Your task to perform on an android device: Search for pizza restaurants on Maps Image 0: 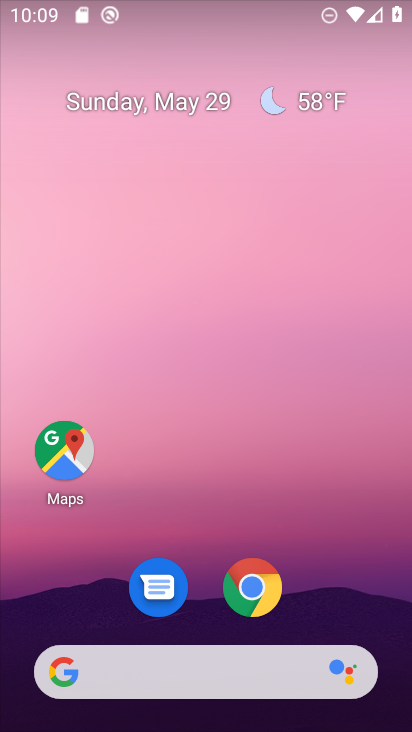
Step 0: click (62, 432)
Your task to perform on an android device: Search for pizza restaurants on Maps Image 1: 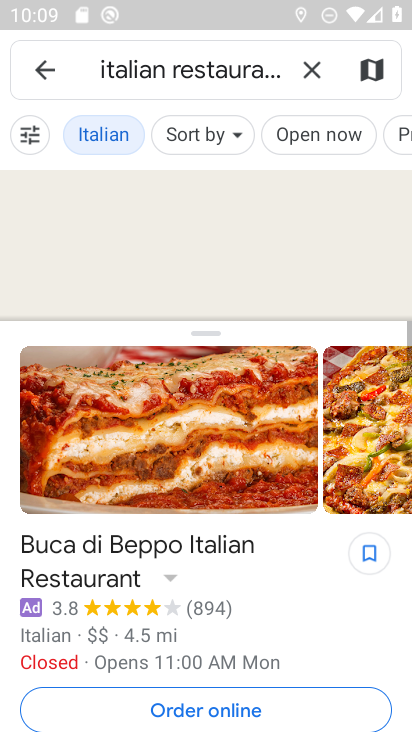
Step 1: click (306, 67)
Your task to perform on an android device: Search for pizza restaurants on Maps Image 2: 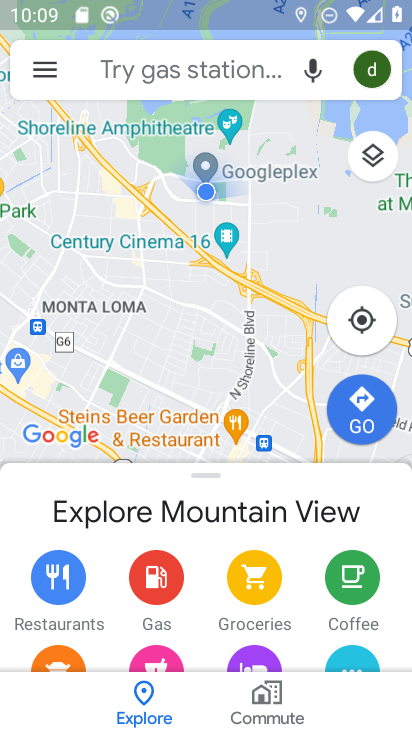
Step 2: click (118, 76)
Your task to perform on an android device: Search for pizza restaurants on Maps Image 3: 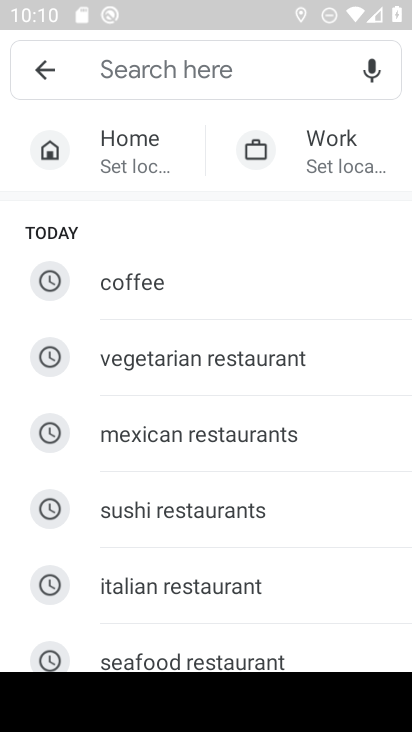
Step 3: drag from (255, 622) to (223, 266)
Your task to perform on an android device: Search for pizza restaurants on Maps Image 4: 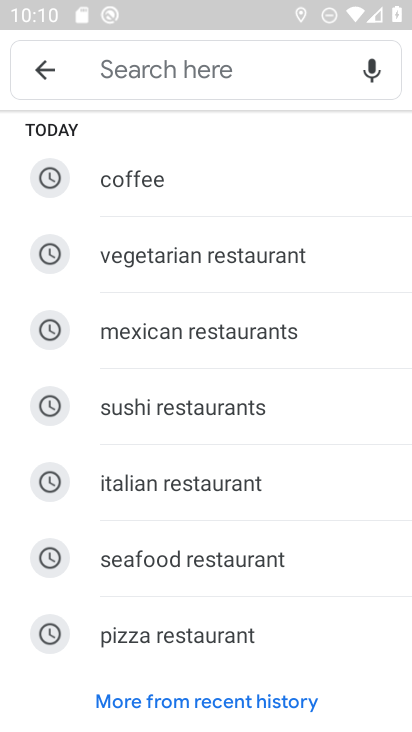
Step 4: click (279, 634)
Your task to perform on an android device: Search for pizza restaurants on Maps Image 5: 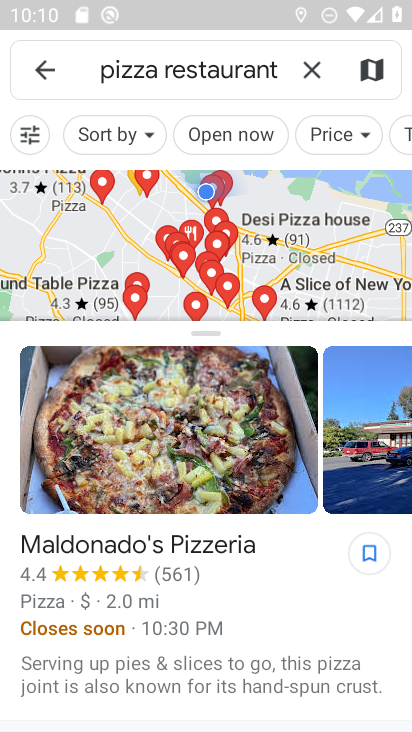
Step 5: task complete